Your task to perform on an android device: turn off location history Image 0: 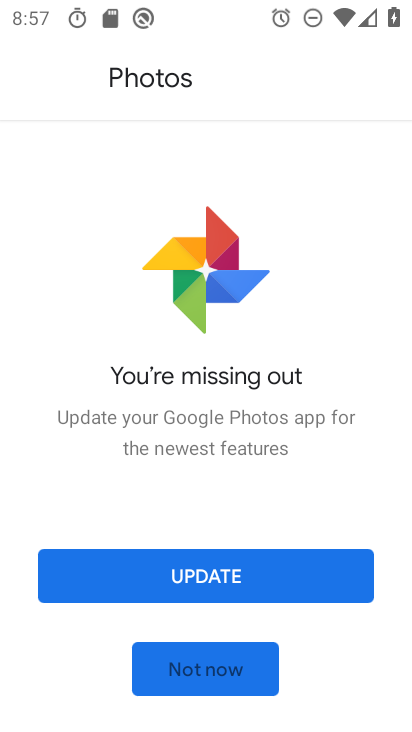
Step 0: press home button
Your task to perform on an android device: turn off location history Image 1: 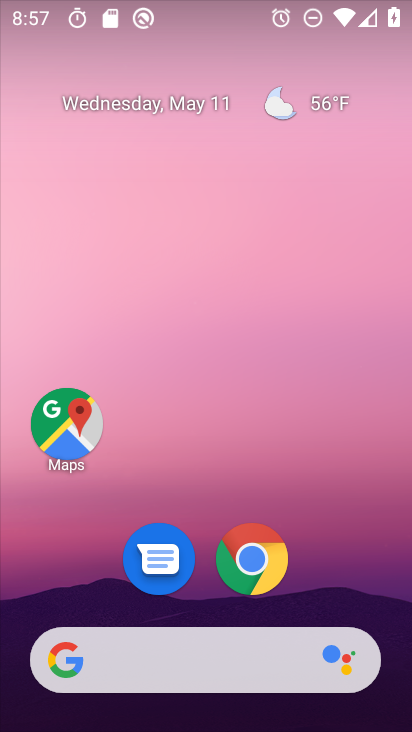
Step 1: drag from (323, 595) to (391, 55)
Your task to perform on an android device: turn off location history Image 2: 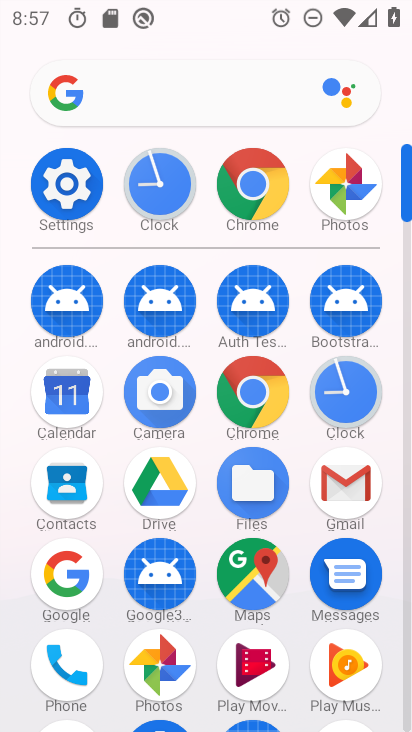
Step 2: click (57, 190)
Your task to perform on an android device: turn off location history Image 3: 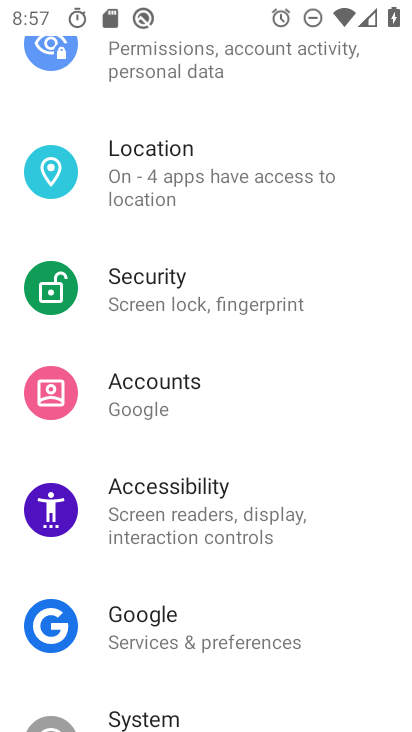
Step 3: click (179, 189)
Your task to perform on an android device: turn off location history Image 4: 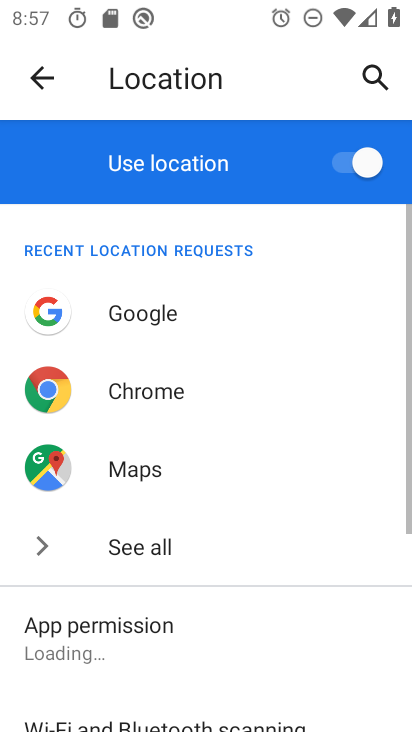
Step 4: drag from (216, 640) to (256, 215)
Your task to perform on an android device: turn off location history Image 5: 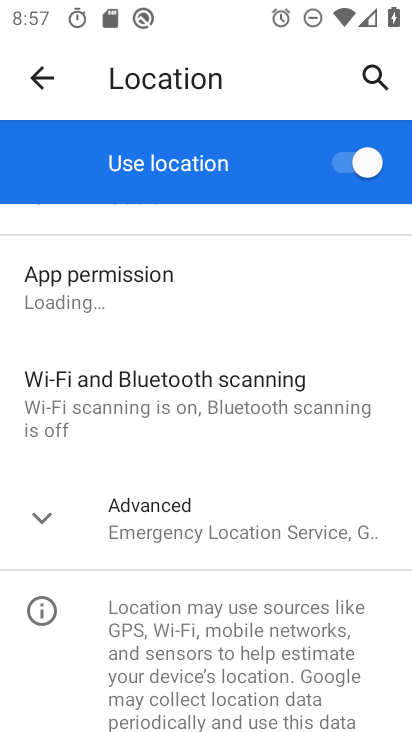
Step 5: click (237, 539)
Your task to perform on an android device: turn off location history Image 6: 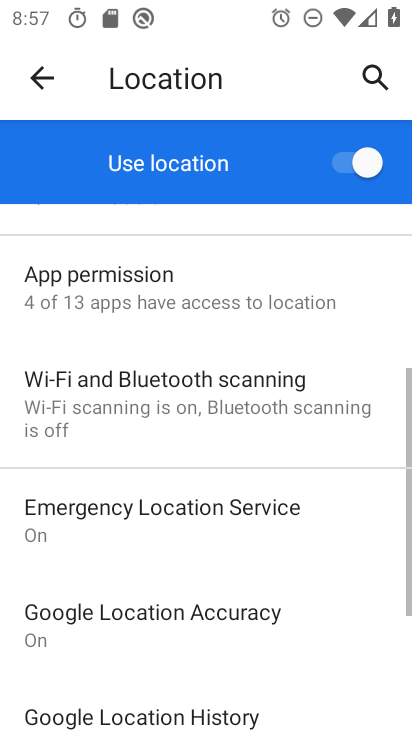
Step 6: drag from (265, 648) to (300, 330)
Your task to perform on an android device: turn off location history Image 7: 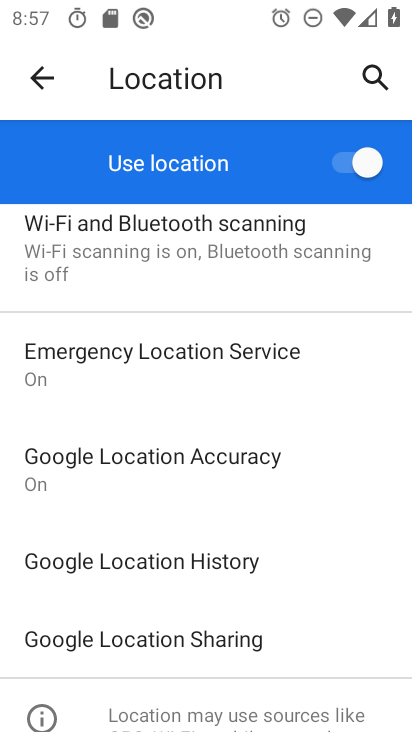
Step 7: click (167, 567)
Your task to perform on an android device: turn off location history Image 8: 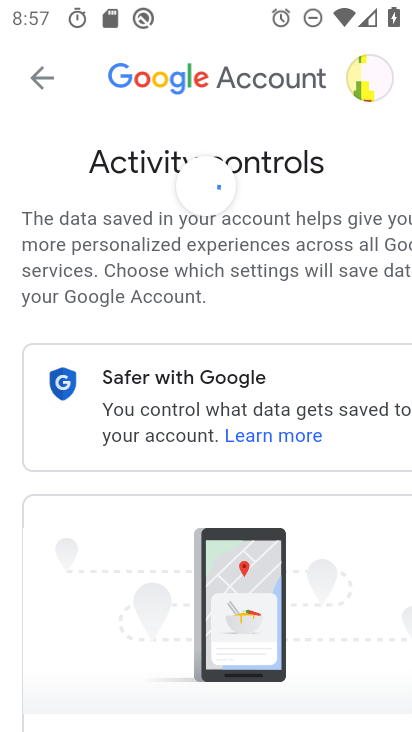
Step 8: drag from (371, 594) to (385, 193)
Your task to perform on an android device: turn off location history Image 9: 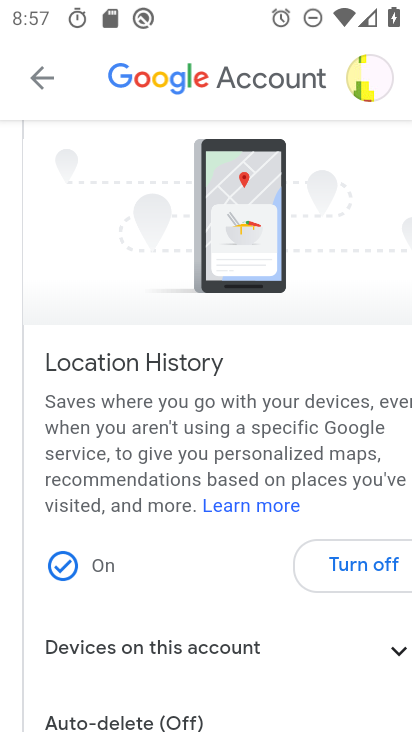
Step 9: click (334, 577)
Your task to perform on an android device: turn off location history Image 10: 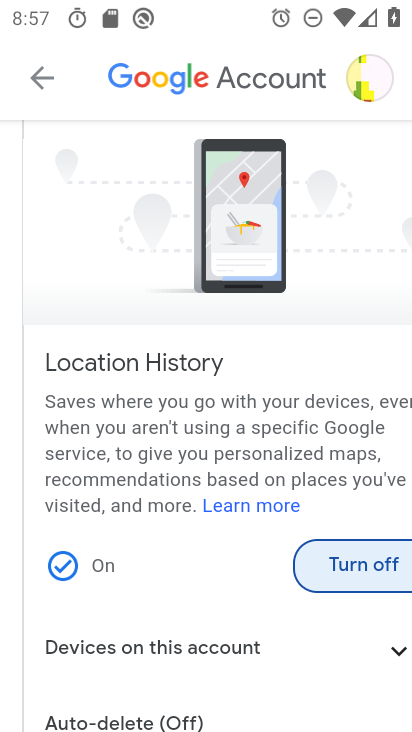
Step 10: click (332, 575)
Your task to perform on an android device: turn off location history Image 11: 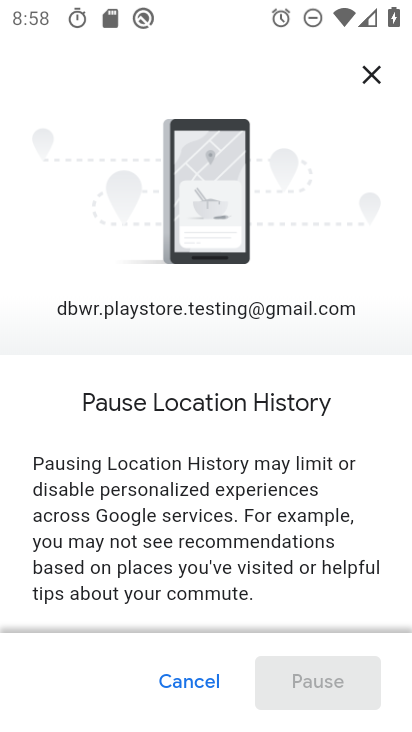
Step 11: drag from (312, 546) to (297, 61)
Your task to perform on an android device: turn off location history Image 12: 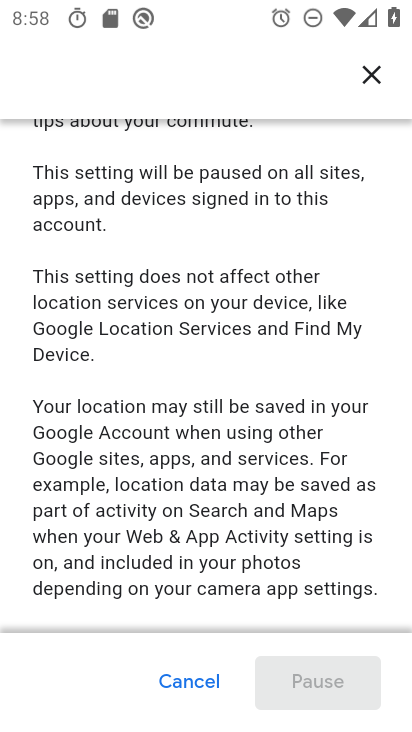
Step 12: drag from (286, 606) to (286, 120)
Your task to perform on an android device: turn off location history Image 13: 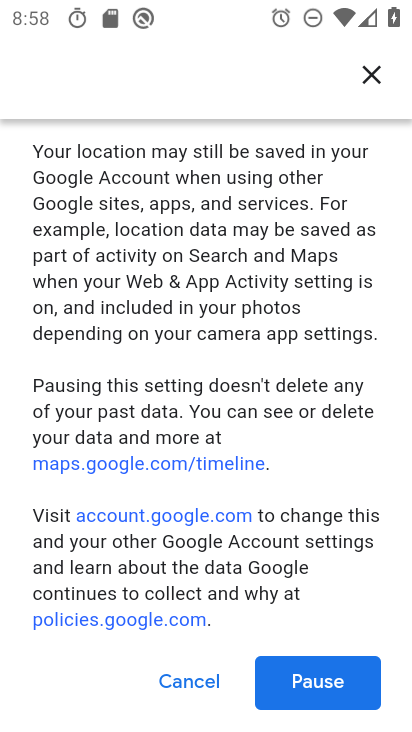
Step 13: click (333, 696)
Your task to perform on an android device: turn off location history Image 14: 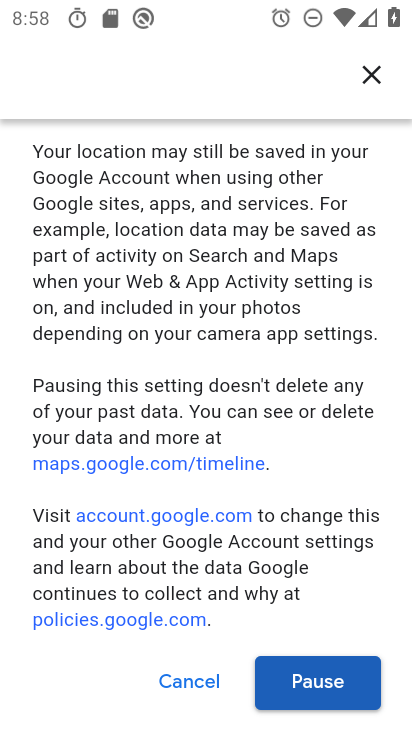
Step 14: click (305, 683)
Your task to perform on an android device: turn off location history Image 15: 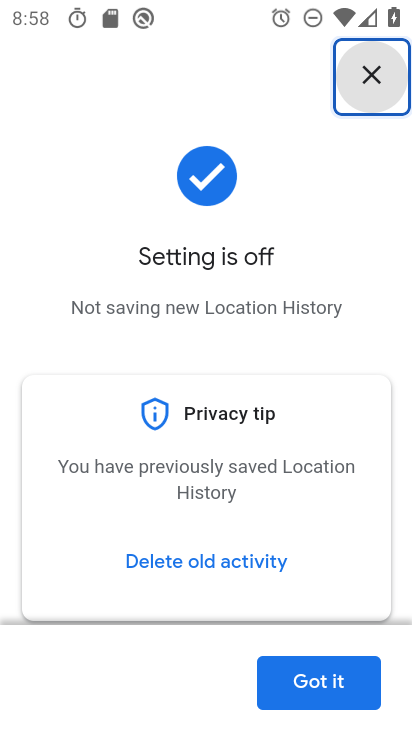
Step 15: click (332, 697)
Your task to perform on an android device: turn off location history Image 16: 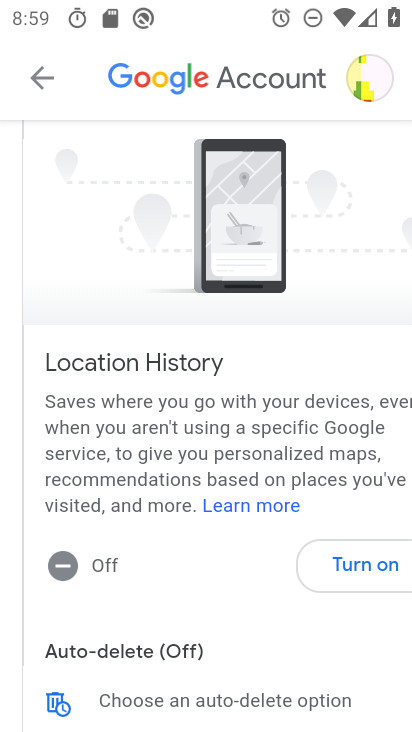
Step 16: task complete